Your task to perform on an android device: Search for pizza restaurants on Maps Image 0: 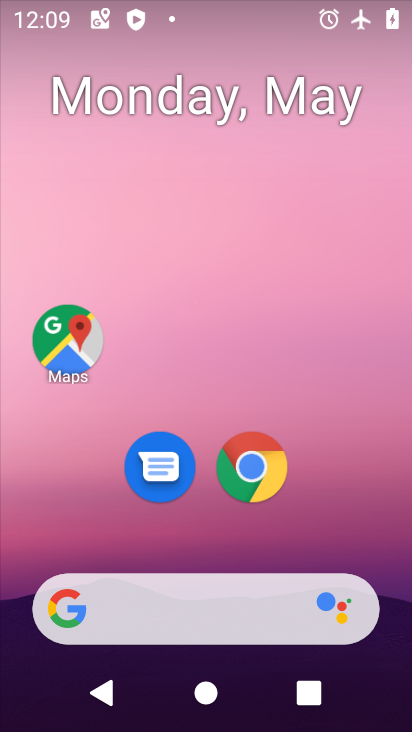
Step 0: click (66, 345)
Your task to perform on an android device: Search for pizza restaurants on Maps Image 1: 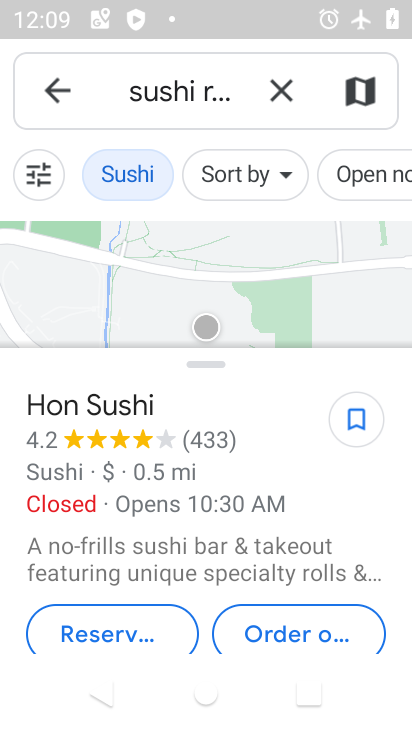
Step 1: click (283, 90)
Your task to perform on an android device: Search for pizza restaurants on Maps Image 2: 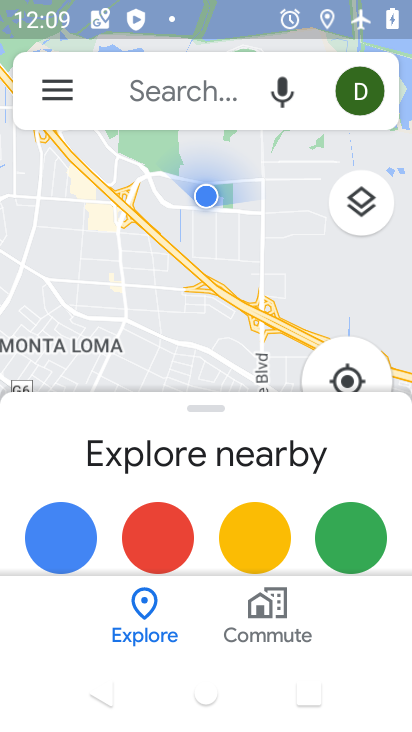
Step 2: click (131, 95)
Your task to perform on an android device: Search for pizza restaurants on Maps Image 3: 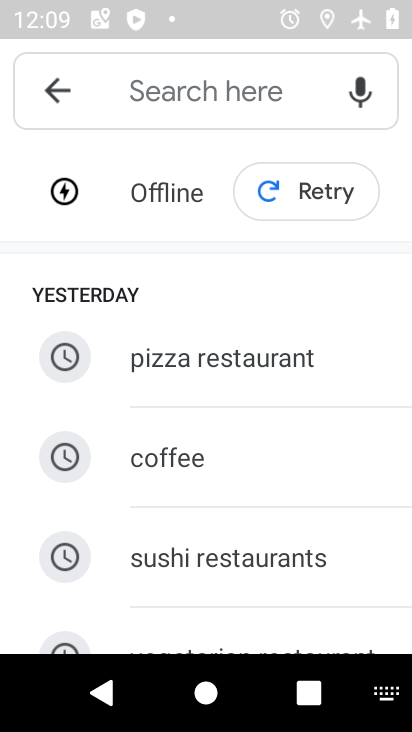
Step 3: type "pizza restaurant"
Your task to perform on an android device: Search for pizza restaurants on Maps Image 4: 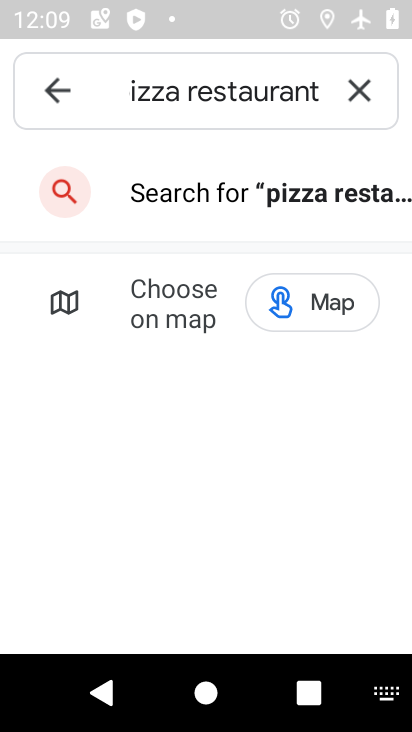
Step 4: click (300, 195)
Your task to perform on an android device: Search for pizza restaurants on Maps Image 5: 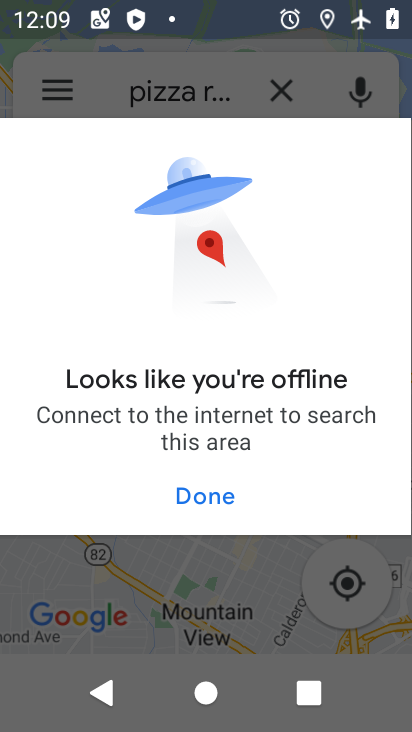
Step 5: task complete